Your task to perform on an android device: Search for Mexican restaurants on Maps Image 0: 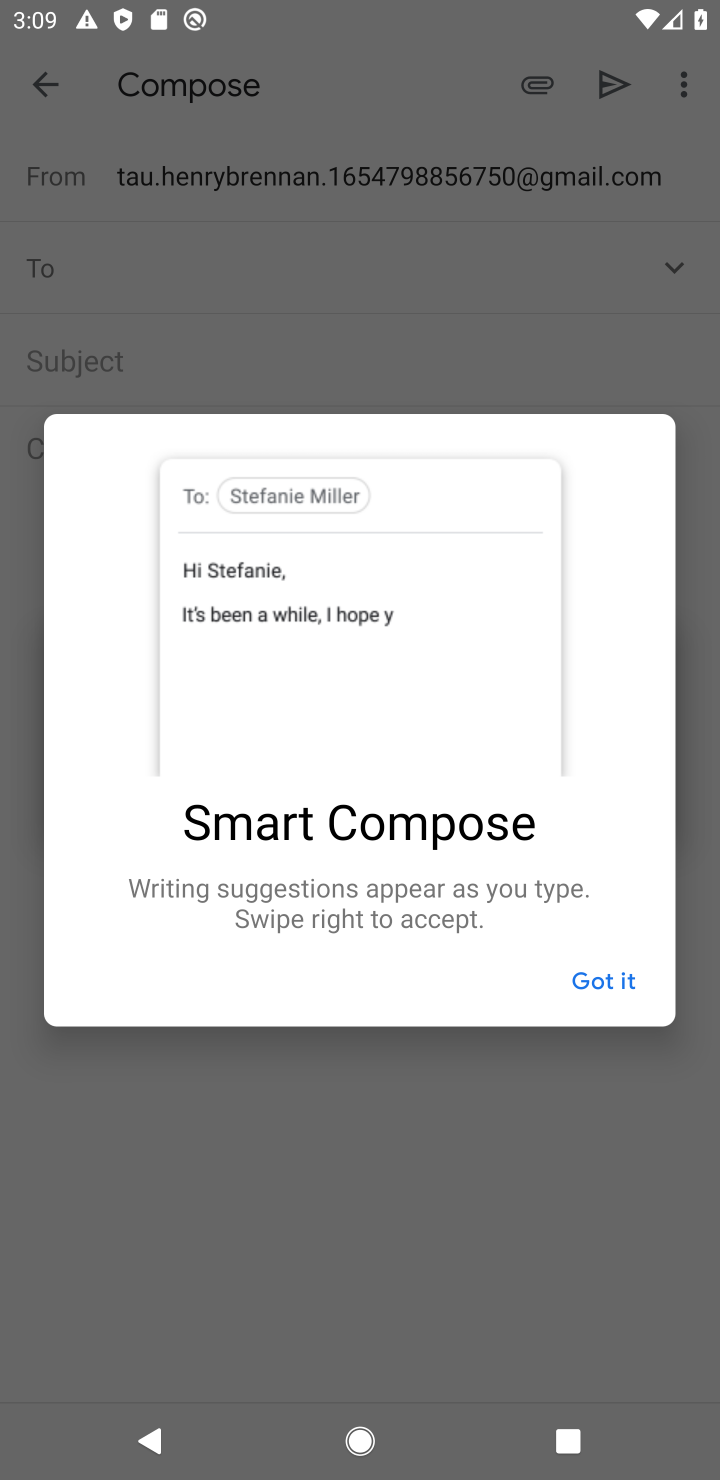
Step 0: press home button
Your task to perform on an android device: Search for Mexican restaurants on Maps Image 1: 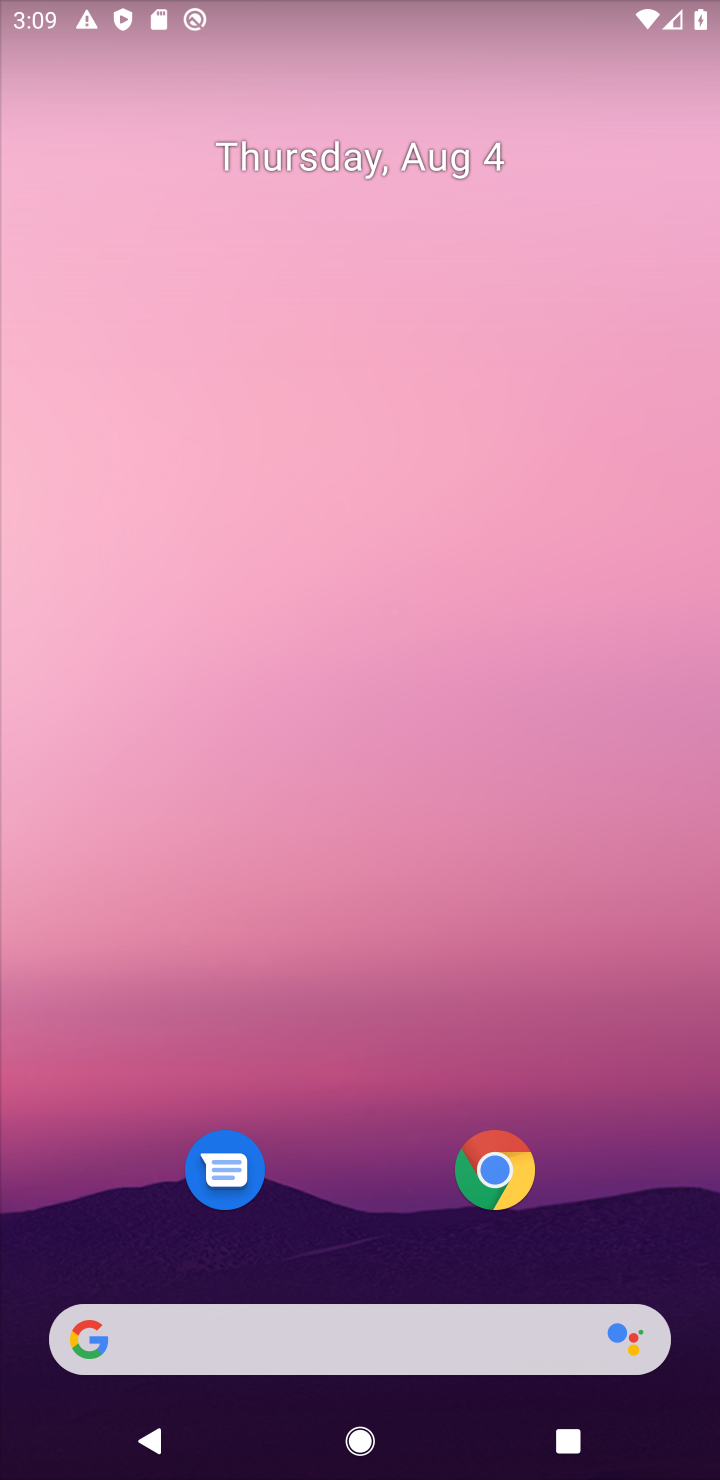
Step 1: drag from (629, 963) to (567, 188)
Your task to perform on an android device: Search for Mexican restaurants on Maps Image 2: 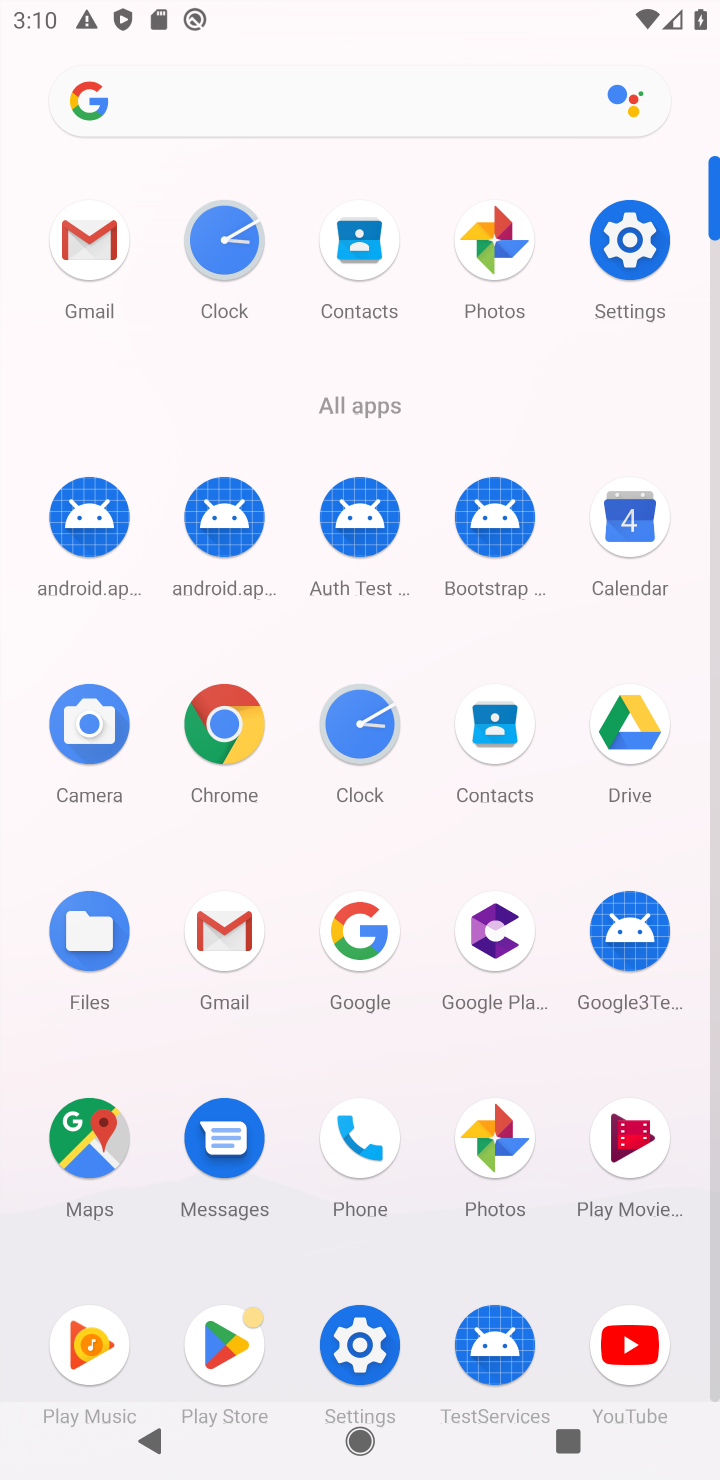
Step 2: click (88, 1139)
Your task to perform on an android device: Search for Mexican restaurants on Maps Image 3: 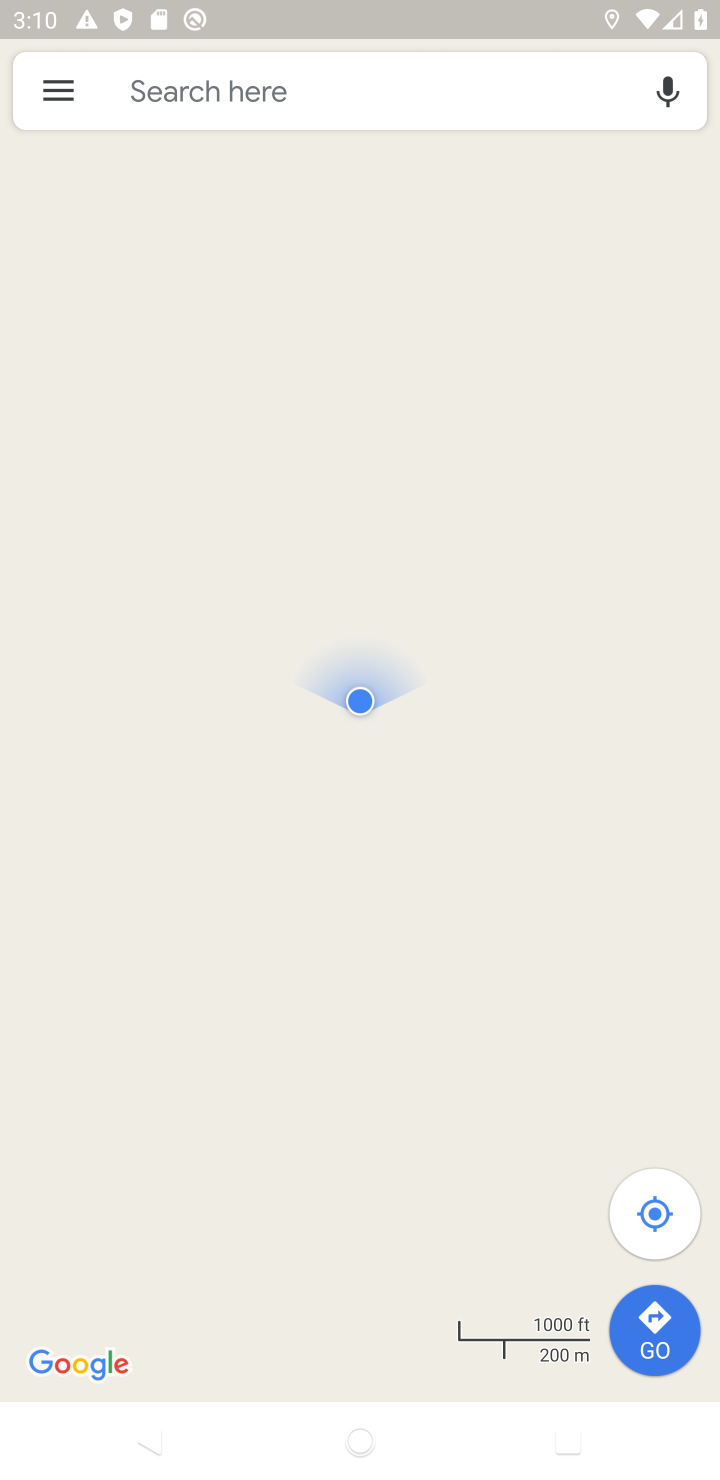
Step 3: click (246, 88)
Your task to perform on an android device: Search for Mexican restaurants on Maps Image 4: 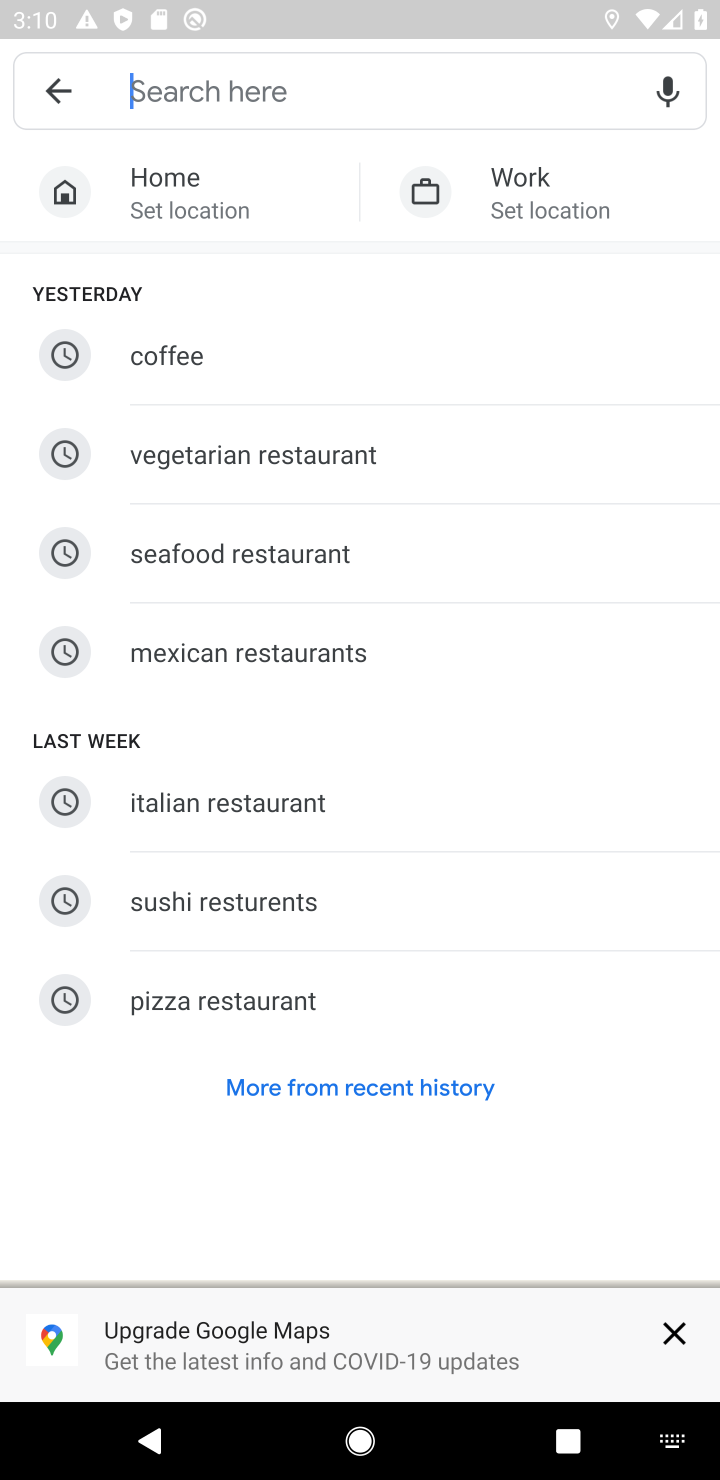
Step 4: type "mexican restaurants"
Your task to perform on an android device: Search for Mexican restaurants on Maps Image 5: 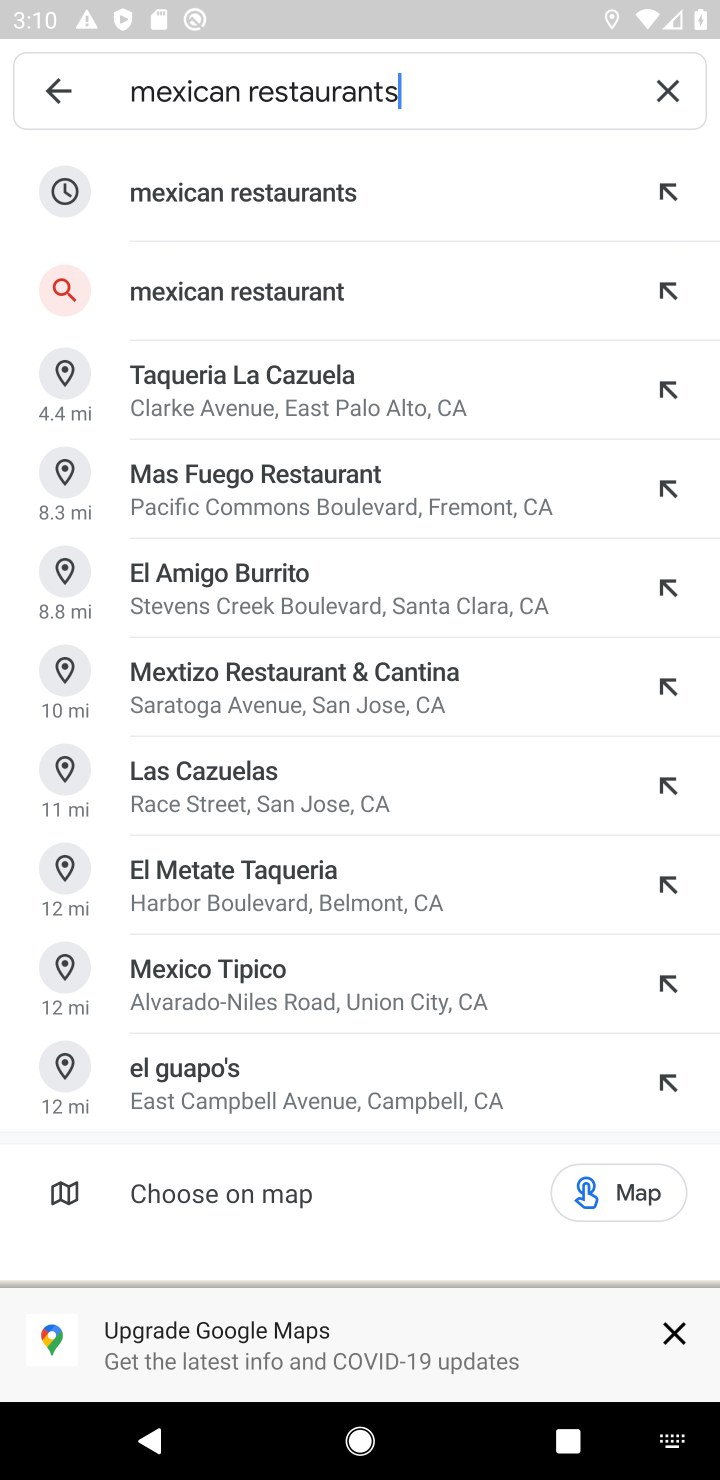
Step 5: click (296, 174)
Your task to perform on an android device: Search for Mexican restaurants on Maps Image 6: 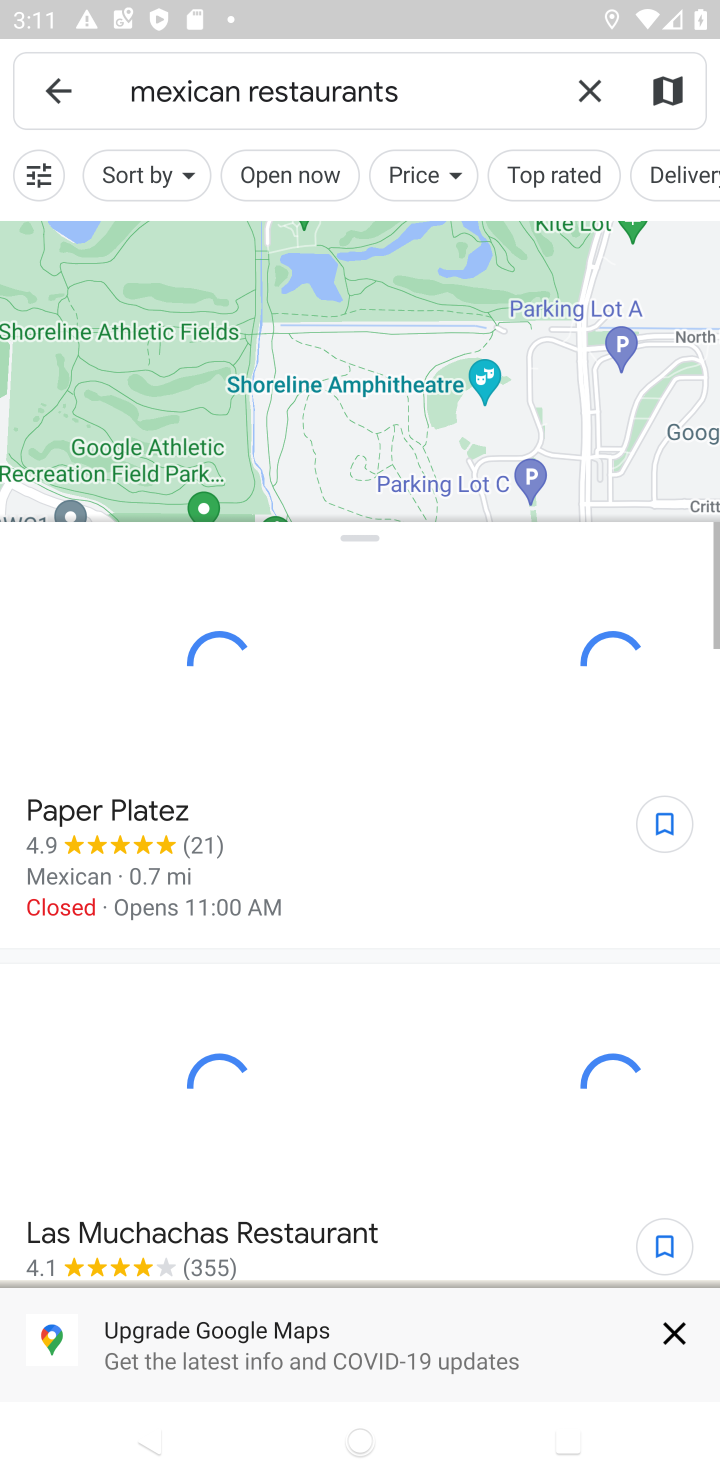
Step 6: task complete